Your task to perform on an android device: Search for a new water heater on Home Depot Image 0: 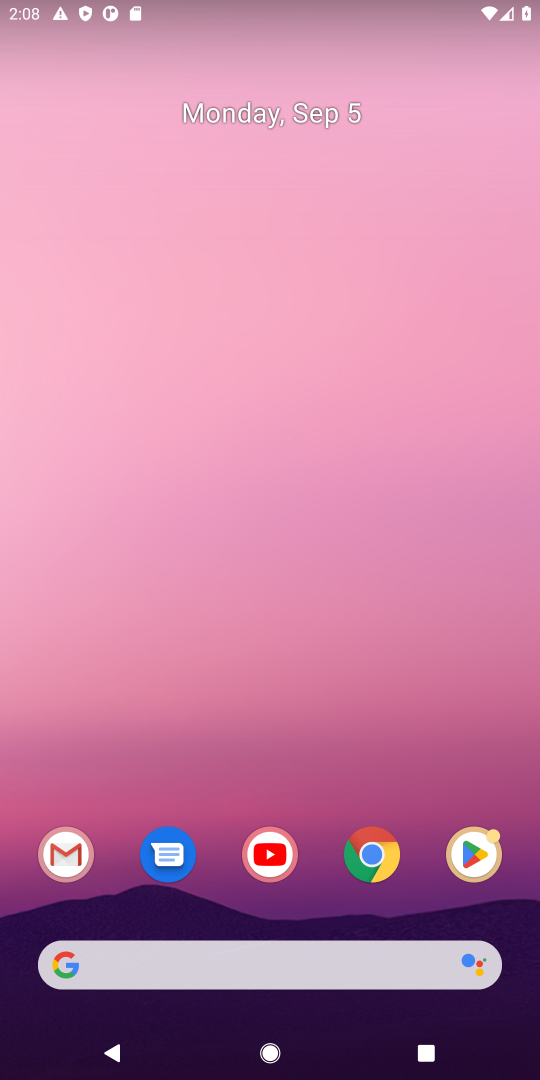
Step 0: click (371, 963)
Your task to perform on an android device: Search for a new water heater on Home Depot Image 1: 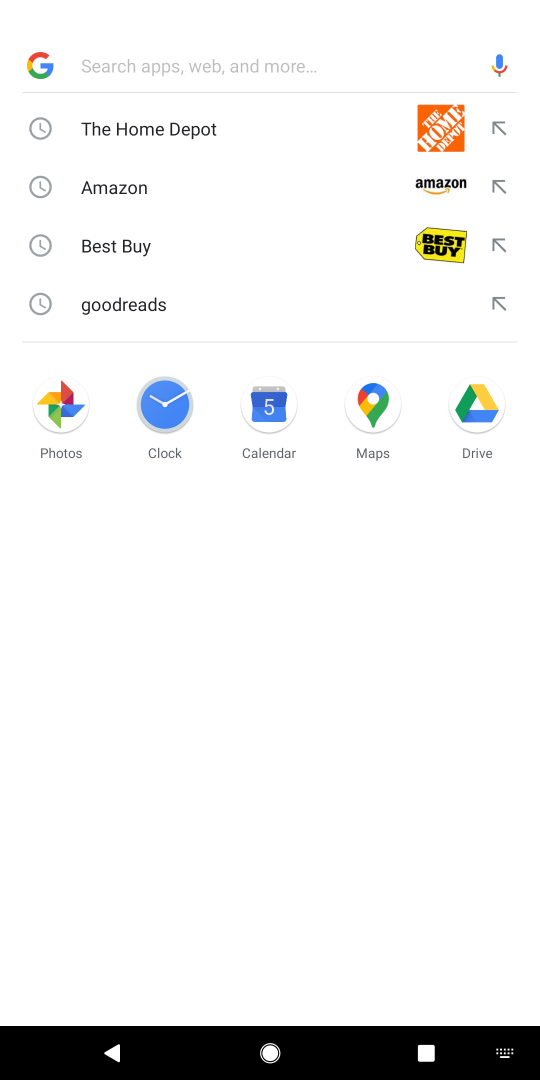
Step 1: type "home depot"
Your task to perform on an android device: Search for a new water heater on Home Depot Image 2: 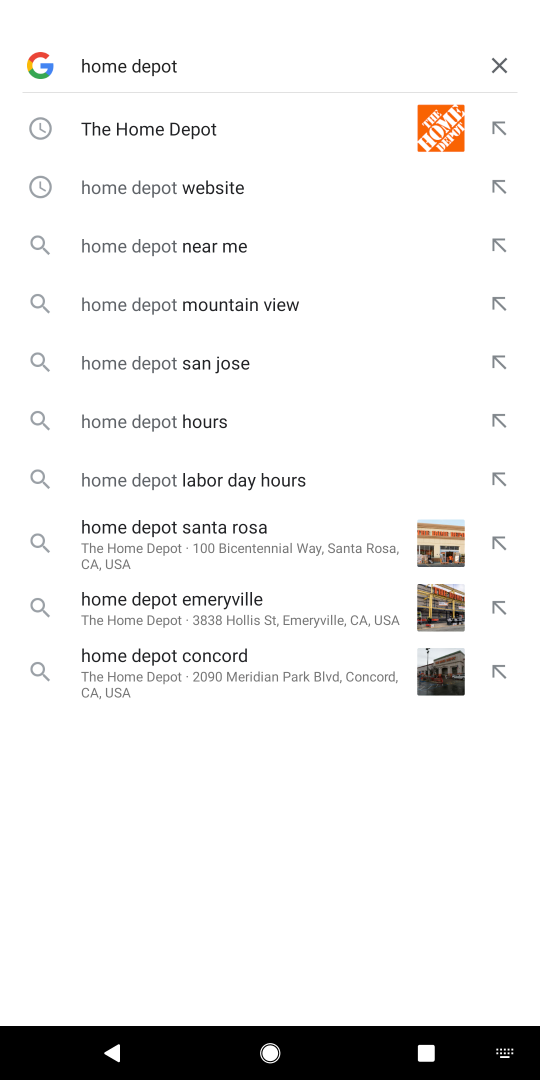
Step 2: press enter
Your task to perform on an android device: Search for a new water heater on Home Depot Image 3: 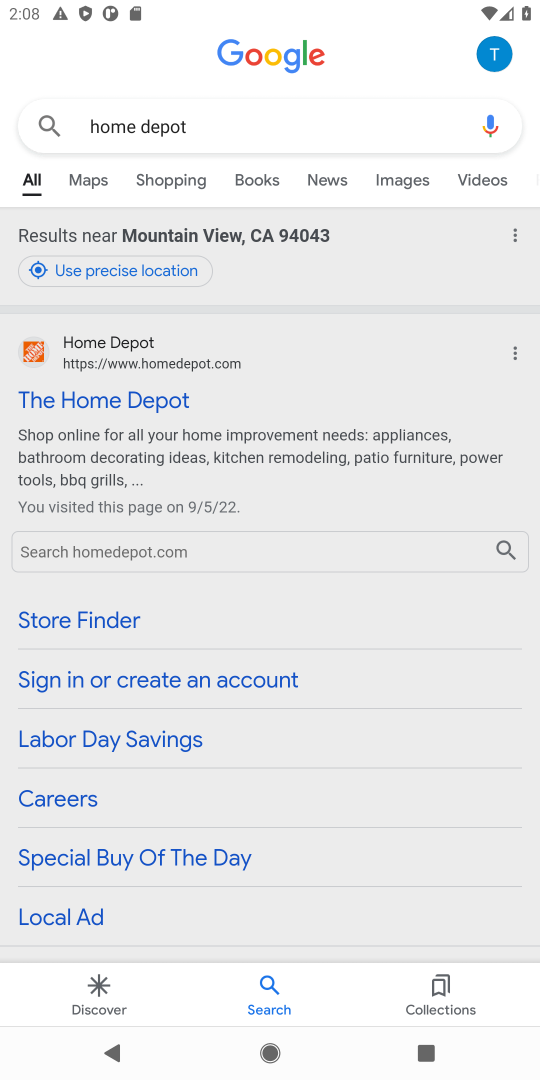
Step 3: click (137, 402)
Your task to perform on an android device: Search for a new water heater on Home Depot Image 4: 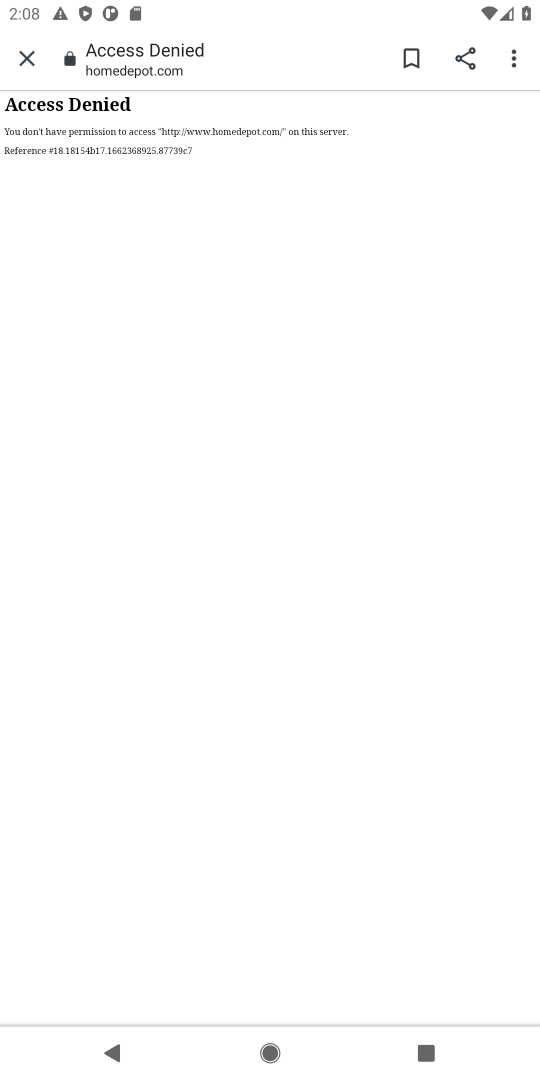
Step 4: task complete